Your task to perform on an android device: toggle pop-ups in chrome Image 0: 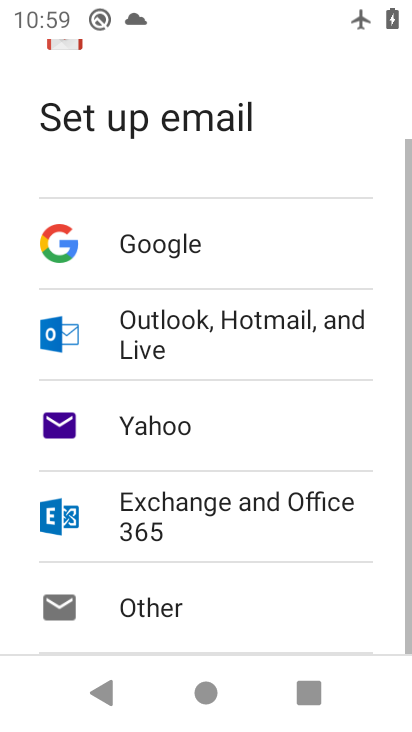
Step 0: drag from (211, 587) to (290, 262)
Your task to perform on an android device: toggle pop-ups in chrome Image 1: 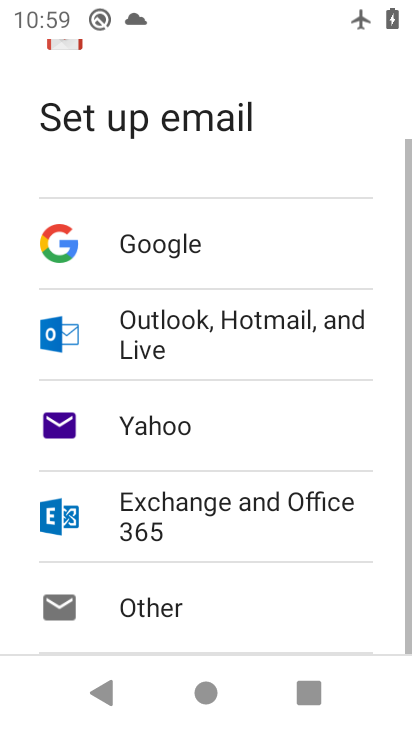
Step 1: press home button
Your task to perform on an android device: toggle pop-ups in chrome Image 2: 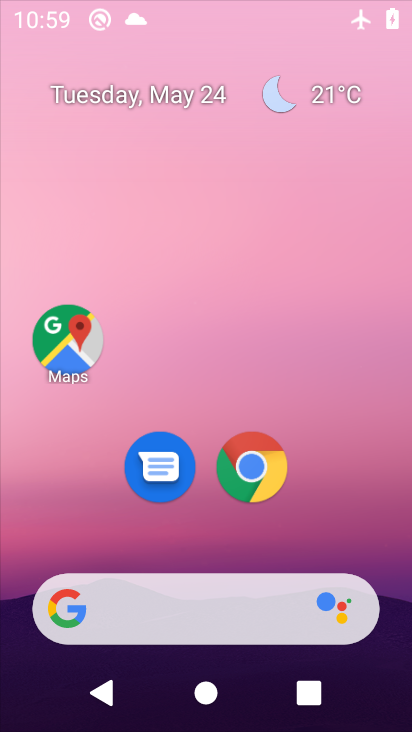
Step 2: drag from (198, 583) to (335, 12)
Your task to perform on an android device: toggle pop-ups in chrome Image 3: 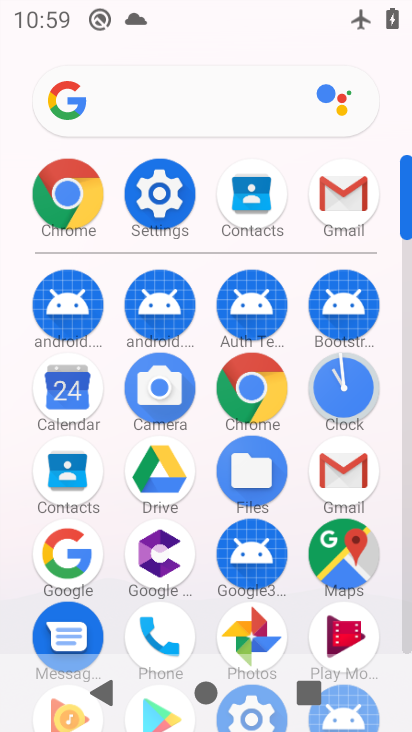
Step 3: click (65, 205)
Your task to perform on an android device: toggle pop-ups in chrome Image 4: 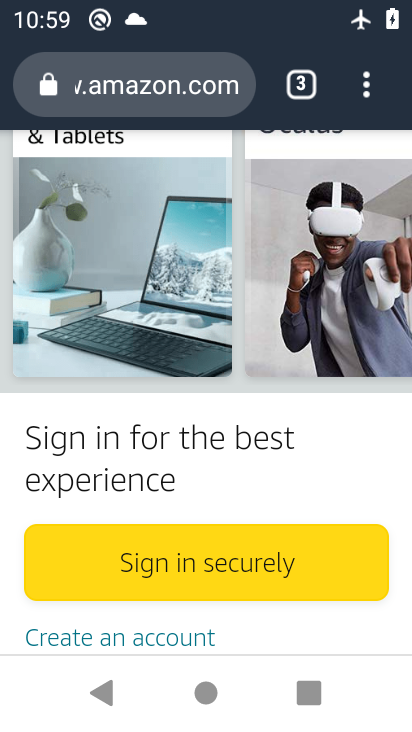
Step 4: click (370, 85)
Your task to perform on an android device: toggle pop-ups in chrome Image 5: 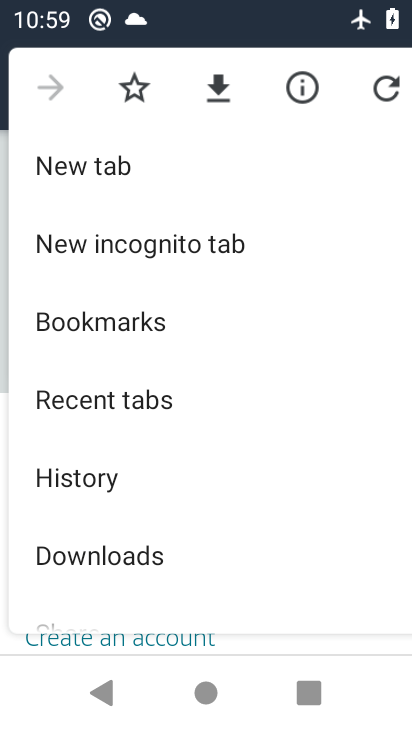
Step 5: drag from (152, 552) to (251, 179)
Your task to perform on an android device: toggle pop-ups in chrome Image 6: 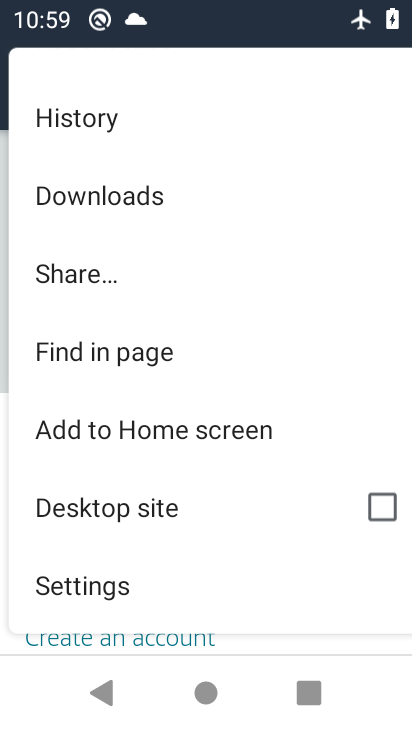
Step 6: click (111, 587)
Your task to perform on an android device: toggle pop-ups in chrome Image 7: 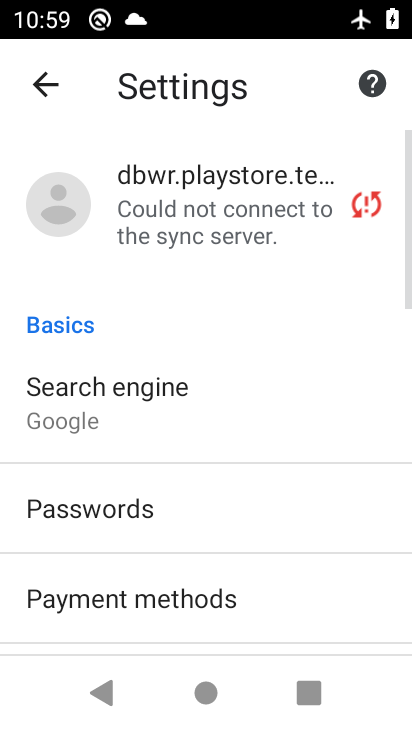
Step 7: drag from (159, 557) to (203, 312)
Your task to perform on an android device: toggle pop-ups in chrome Image 8: 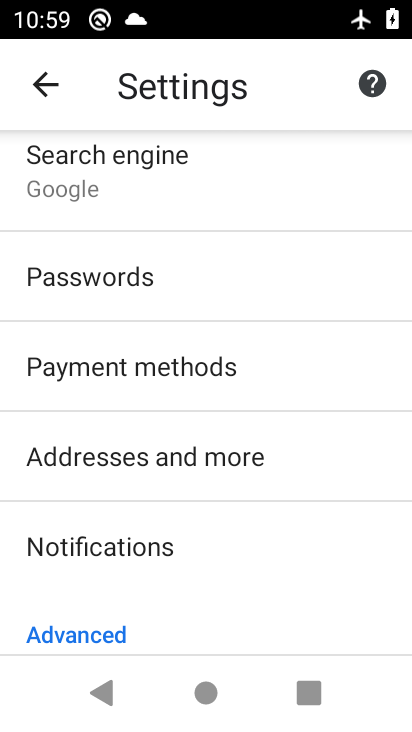
Step 8: drag from (173, 621) to (218, 248)
Your task to perform on an android device: toggle pop-ups in chrome Image 9: 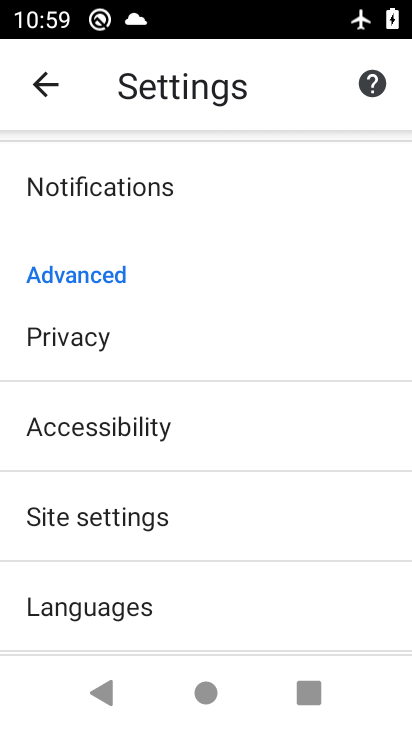
Step 9: click (179, 503)
Your task to perform on an android device: toggle pop-ups in chrome Image 10: 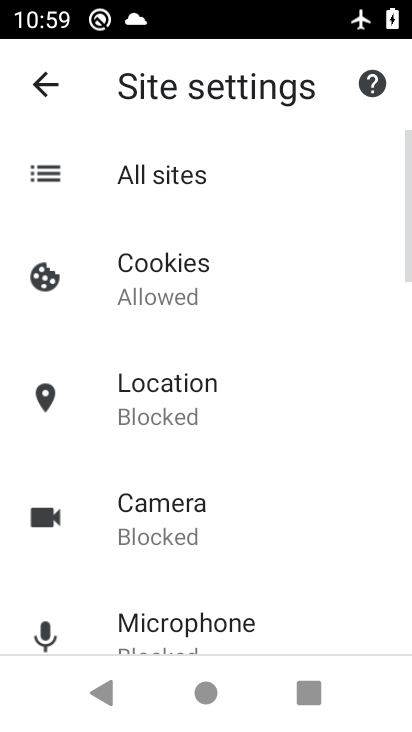
Step 10: drag from (291, 497) to (366, 75)
Your task to perform on an android device: toggle pop-ups in chrome Image 11: 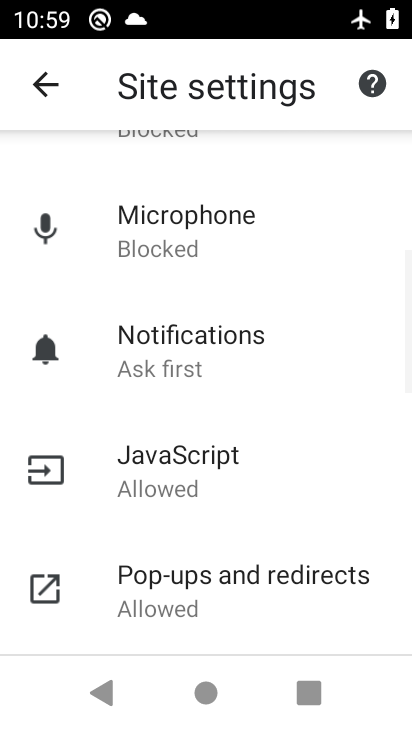
Step 11: click (227, 575)
Your task to perform on an android device: toggle pop-ups in chrome Image 12: 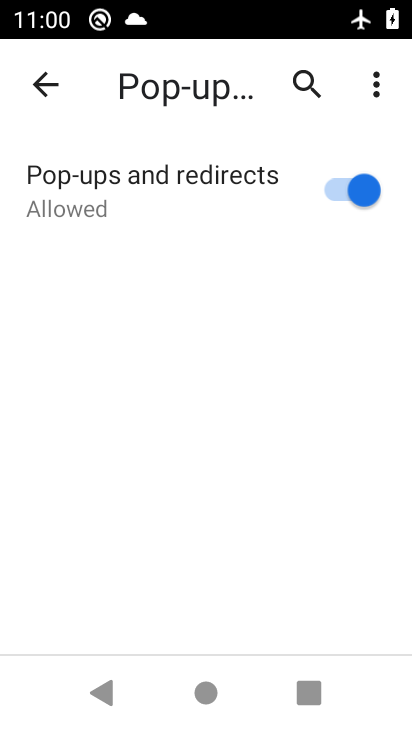
Step 12: click (333, 188)
Your task to perform on an android device: toggle pop-ups in chrome Image 13: 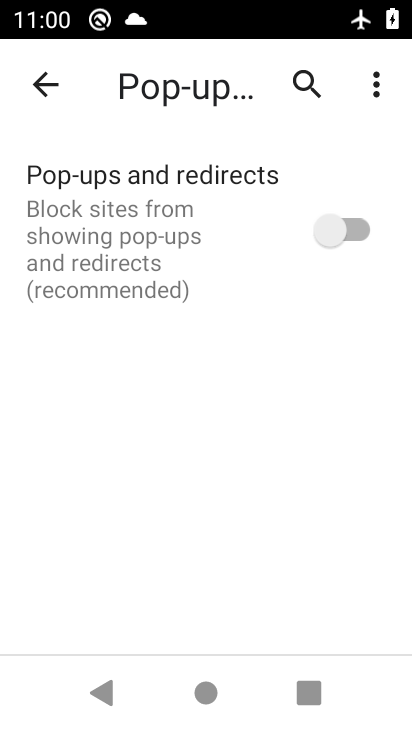
Step 13: task complete